Your task to perform on an android device: turn off data saver in the chrome app Image 0: 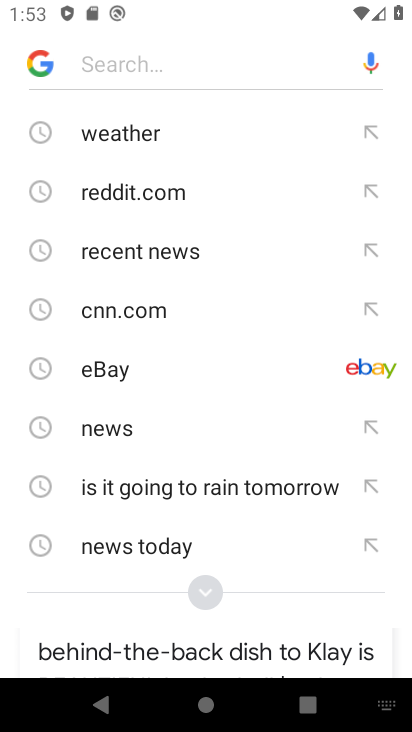
Step 0: press home button
Your task to perform on an android device: turn off data saver in the chrome app Image 1: 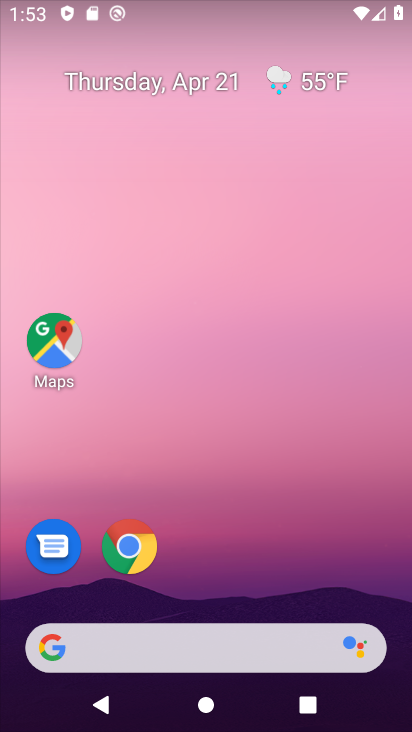
Step 1: click (132, 549)
Your task to perform on an android device: turn off data saver in the chrome app Image 2: 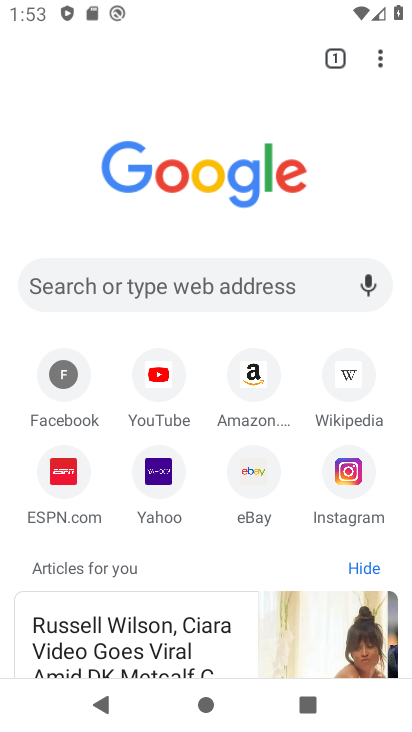
Step 2: click (375, 56)
Your task to perform on an android device: turn off data saver in the chrome app Image 3: 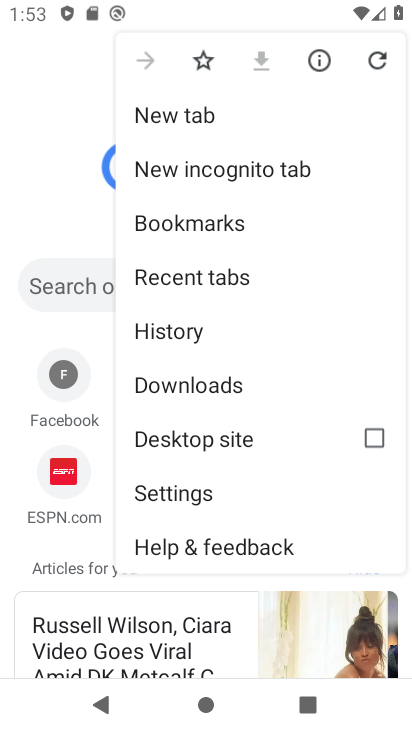
Step 3: click (204, 494)
Your task to perform on an android device: turn off data saver in the chrome app Image 4: 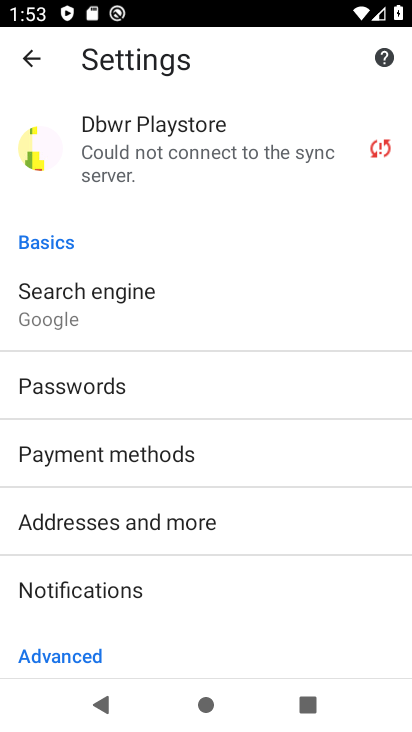
Step 4: drag from (148, 648) to (247, 236)
Your task to perform on an android device: turn off data saver in the chrome app Image 5: 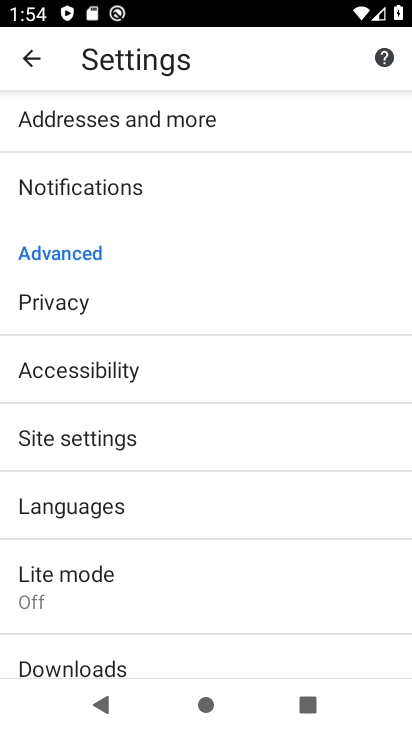
Step 5: click (72, 602)
Your task to perform on an android device: turn off data saver in the chrome app Image 6: 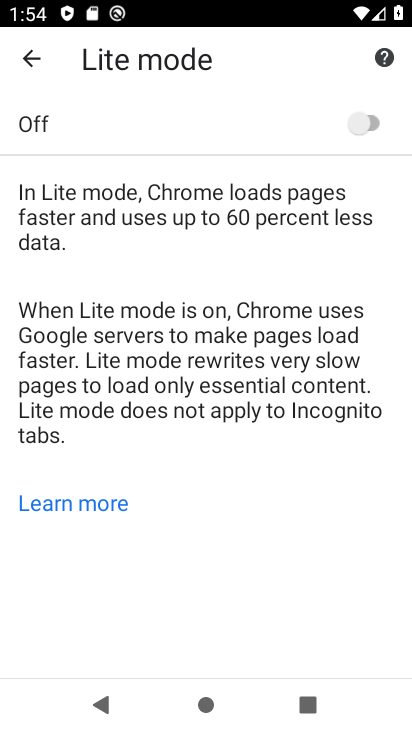
Step 6: task complete